Your task to perform on an android device: Go to Maps Image 0: 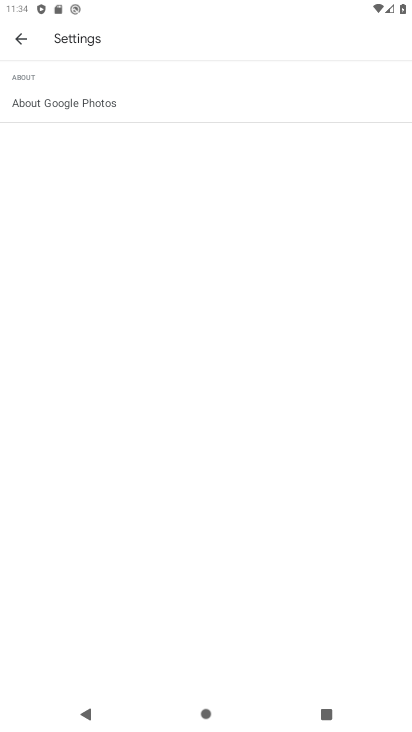
Step 0: press home button
Your task to perform on an android device: Go to Maps Image 1: 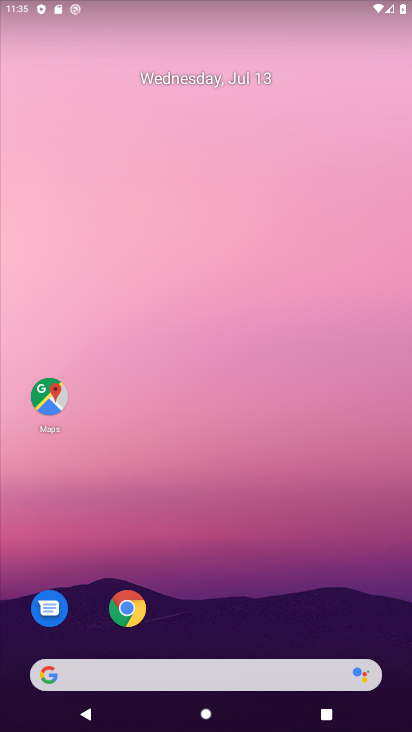
Step 1: drag from (25, 618) to (123, 342)
Your task to perform on an android device: Go to Maps Image 2: 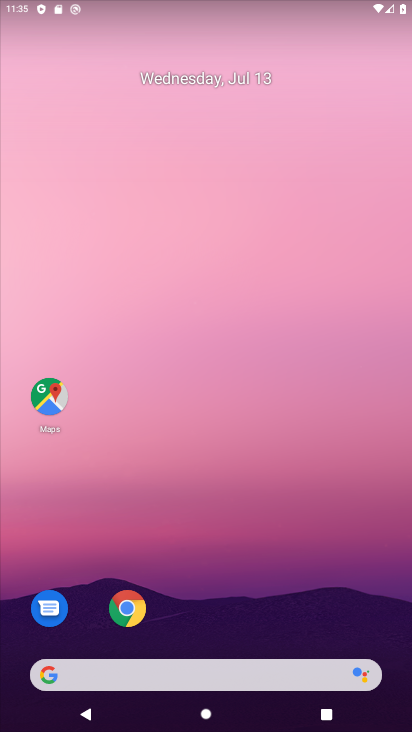
Step 2: click (44, 409)
Your task to perform on an android device: Go to Maps Image 3: 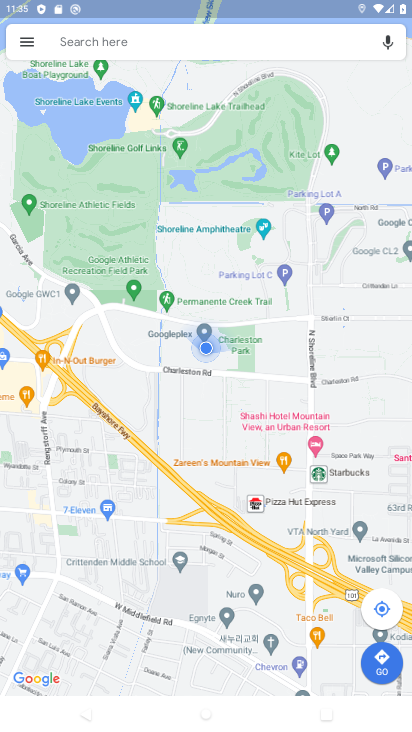
Step 3: task complete